Your task to perform on an android device: turn on translation in the chrome app Image 0: 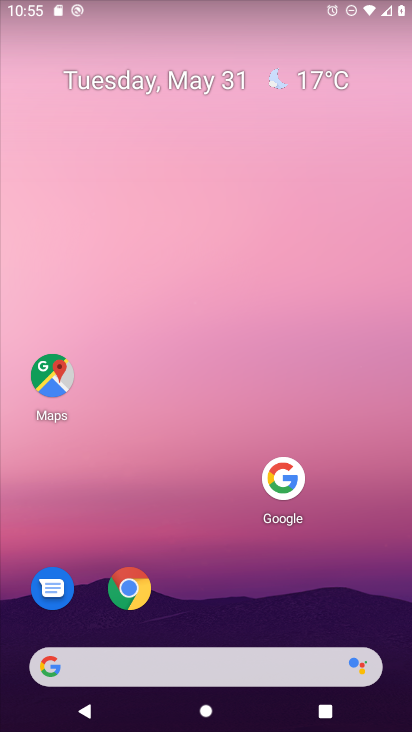
Step 0: drag from (171, 660) to (279, 189)
Your task to perform on an android device: turn on translation in the chrome app Image 1: 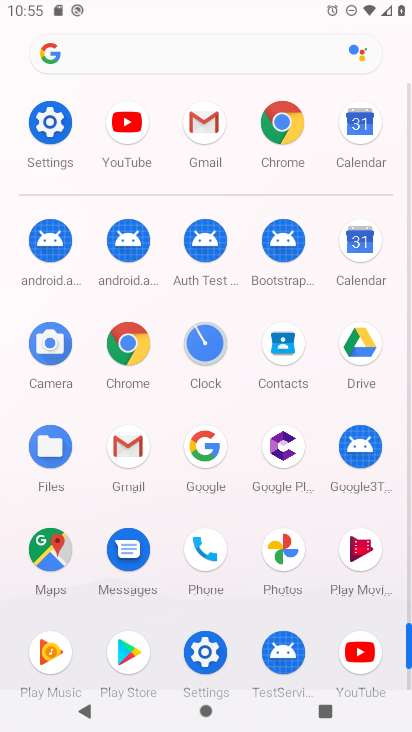
Step 1: click (276, 122)
Your task to perform on an android device: turn on translation in the chrome app Image 2: 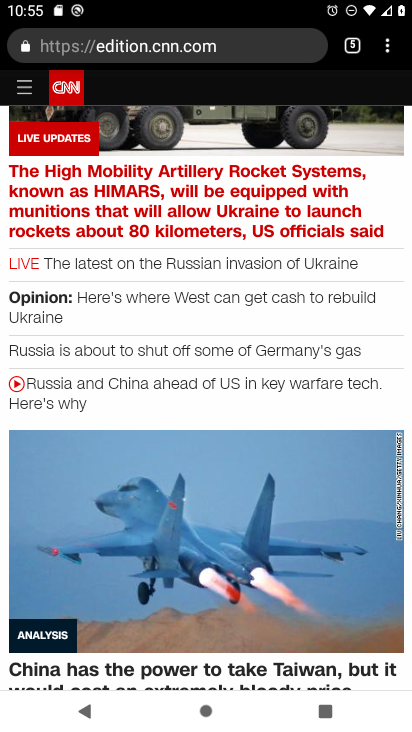
Step 2: drag from (387, 49) to (259, 511)
Your task to perform on an android device: turn on translation in the chrome app Image 3: 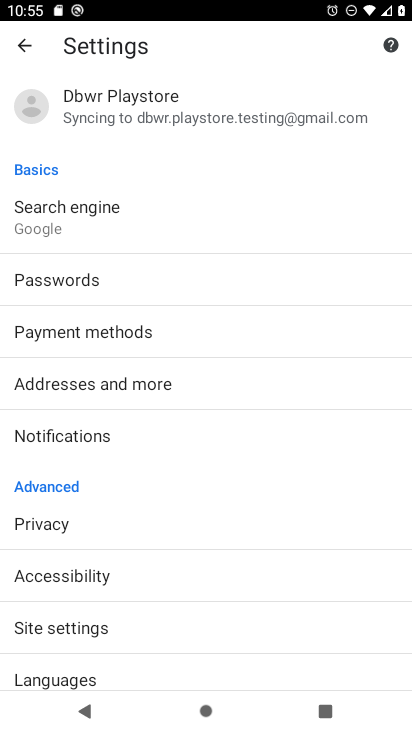
Step 3: click (92, 679)
Your task to perform on an android device: turn on translation in the chrome app Image 4: 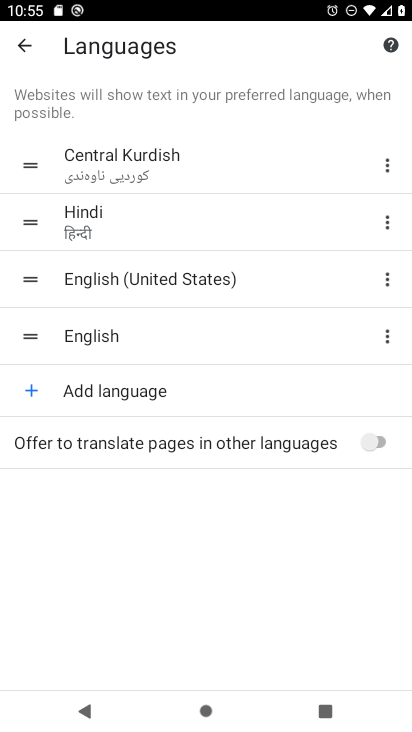
Step 4: click (381, 438)
Your task to perform on an android device: turn on translation in the chrome app Image 5: 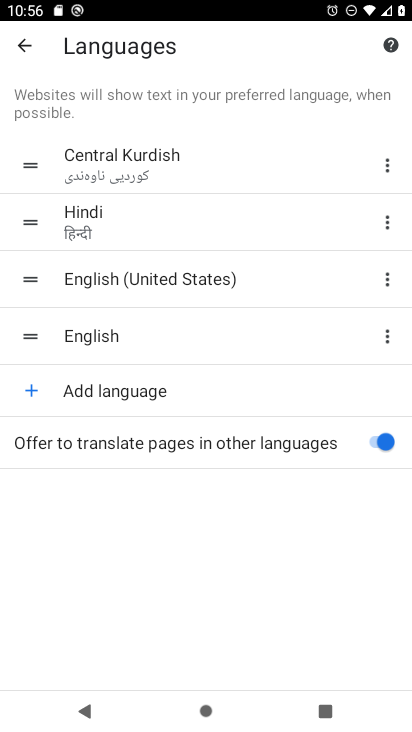
Step 5: task complete